Your task to perform on an android device: turn off airplane mode Image 0: 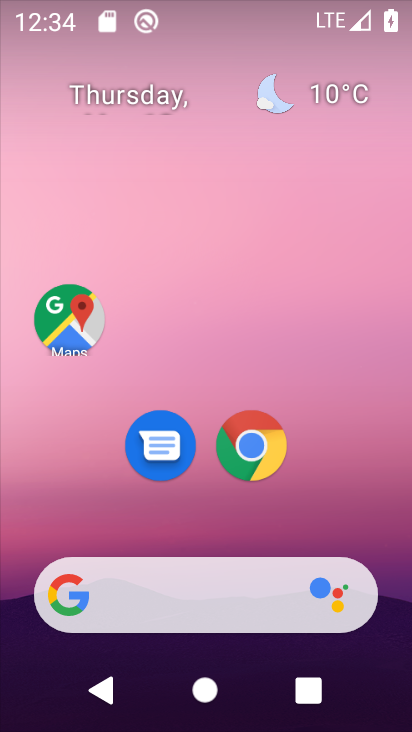
Step 0: drag from (339, 22) to (285, 494)
Your task to perform on an android device: turn off airplane mode Image 1: 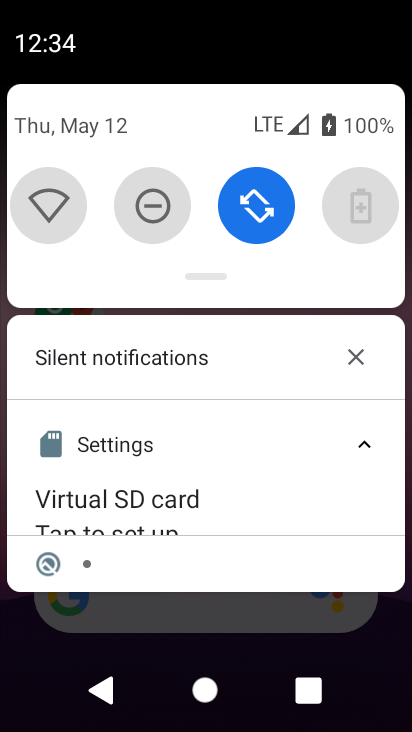
Step 1: task complete